Your task to perform on an android device: What's the weather? Image 0: 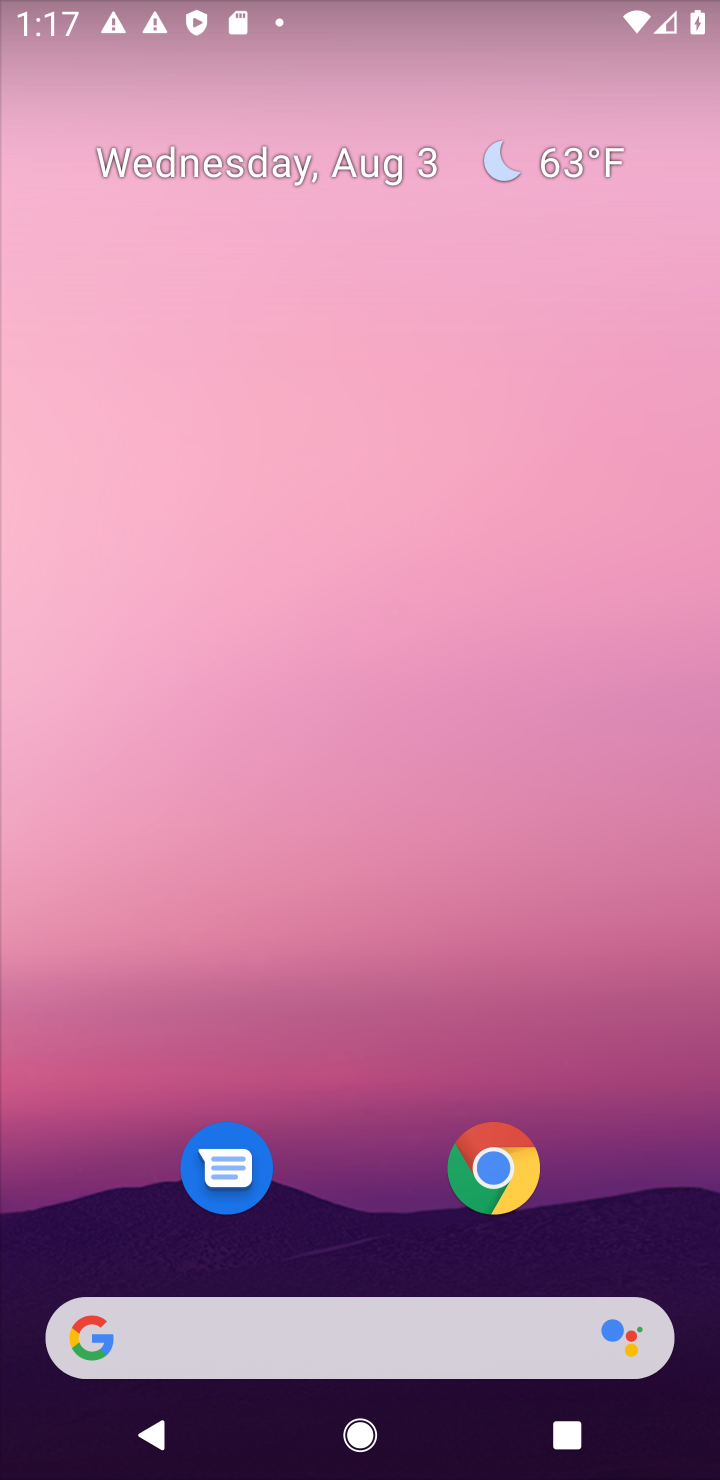
Step 0: click (607, 162)
Your task to perform on an android device: What's the weather? Image 1: 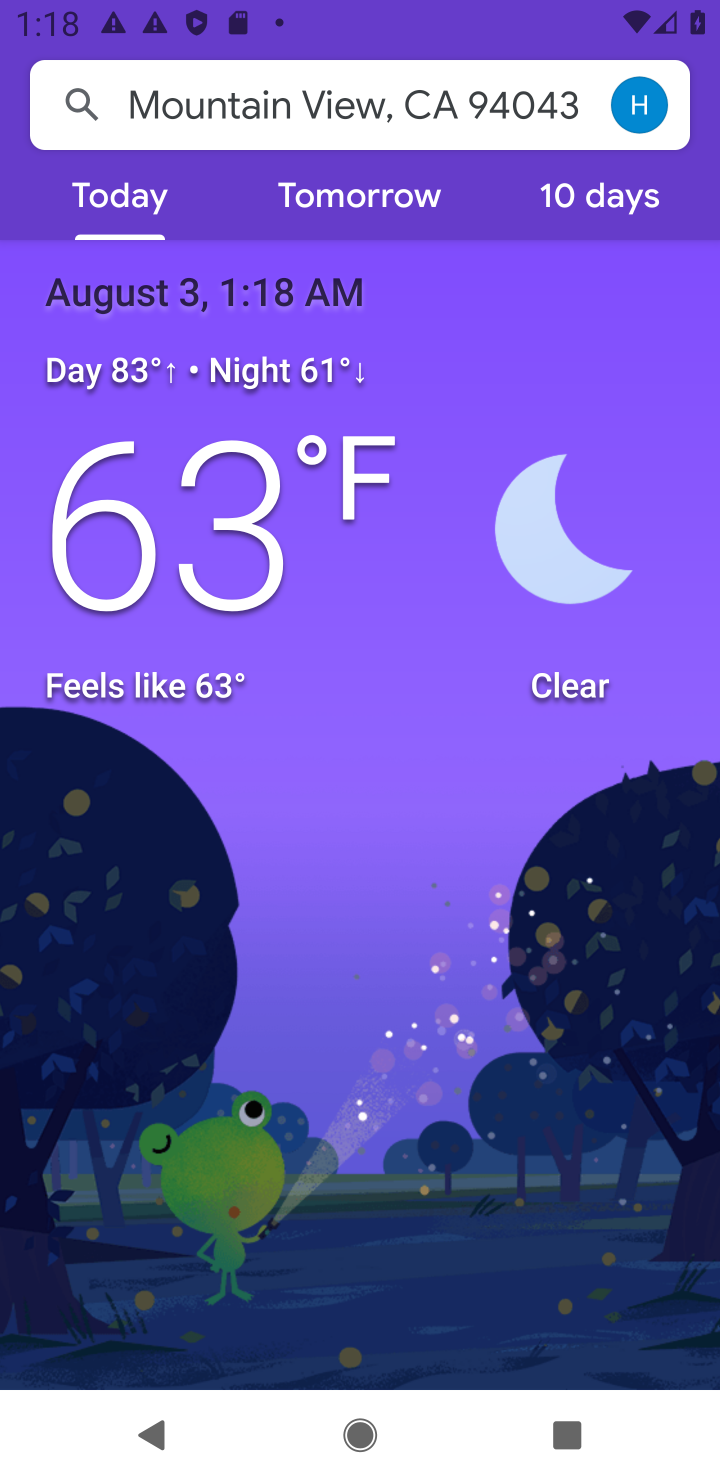
Step 1: task complete